Your task to perform on an android device: find snoozed emails in the gmail app Image 0: 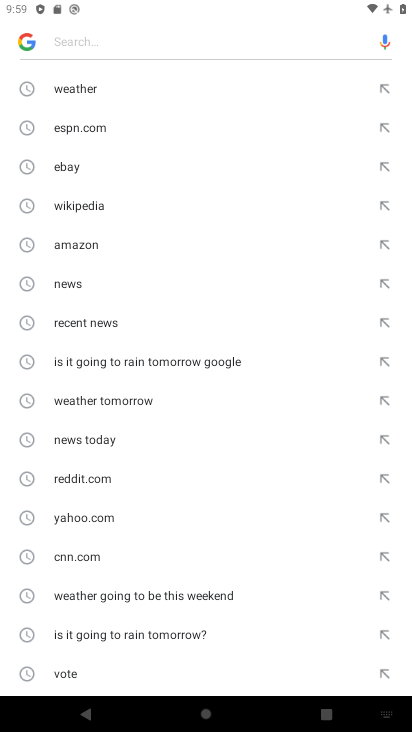
Step 0: press home button
Your task to perform on an android device: find snoozed emails in the gmail app Image 1: 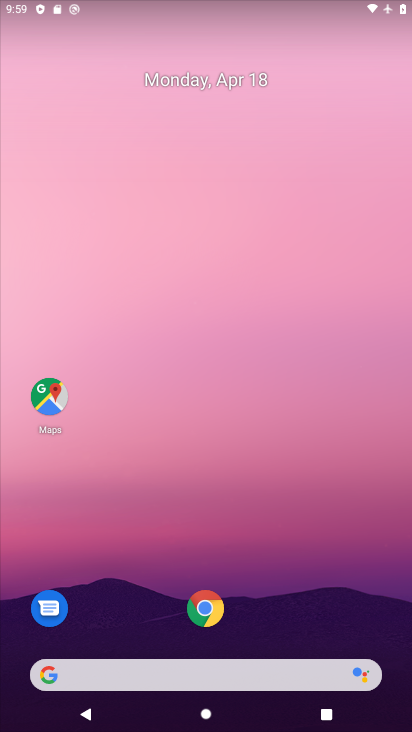
Step 1: drag from (278, 542) to (218, 250)
Your task to perform on an android device: find snoozed emails in the gmail app Image 2: 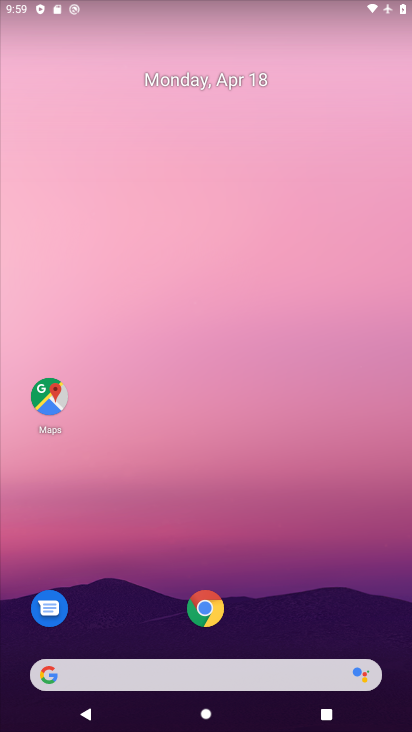
Step 2: drag from (202, 564) to (139, 167)
Your task to perform on an android device: find snoozed emails in the gmail app Image 3: 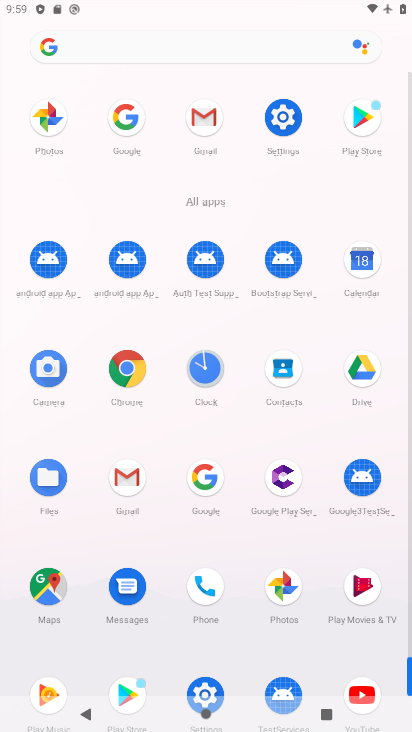
Step 3: click (130, 488)
Your task to perform on an android device: find snoozed emails in the gmail app Image 4: 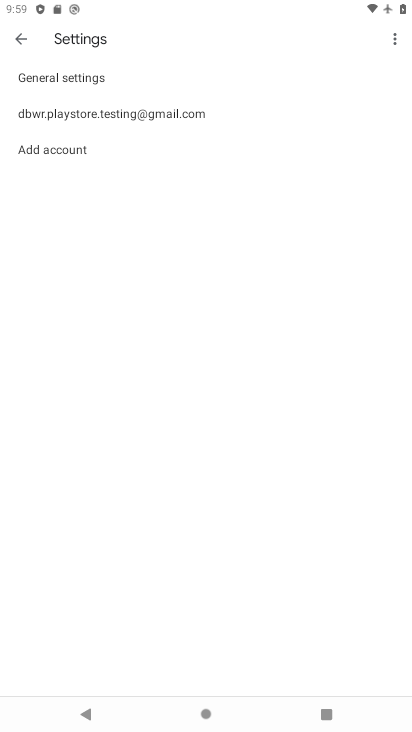
Step 4: press back button
Your task to perform on an android device: find snoozed emails in the gmail app Image 5: 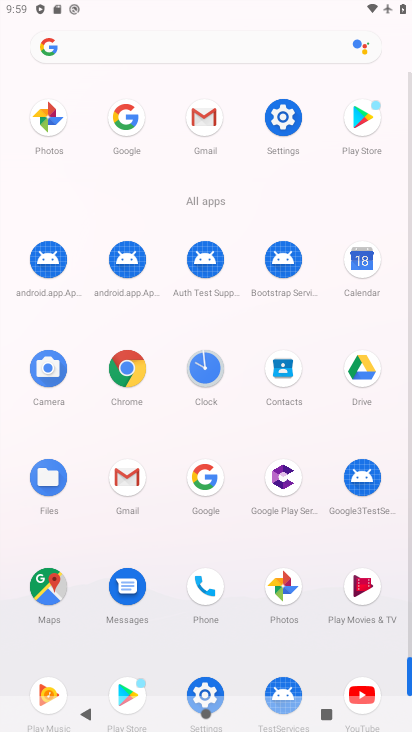
Step 5: click (200, 130)
Your task to perform on an android device: find snoozed emails in the gmail app Image 6: 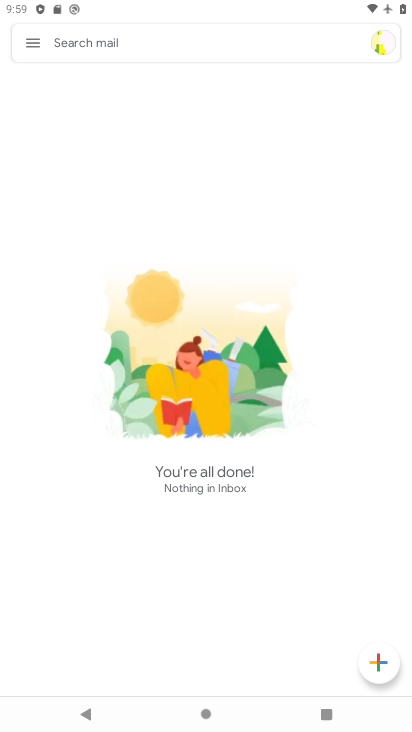
Step 6: click (29, 50)
Your task to perform on an android device: find snoozed emails in the gmail app Image 7: 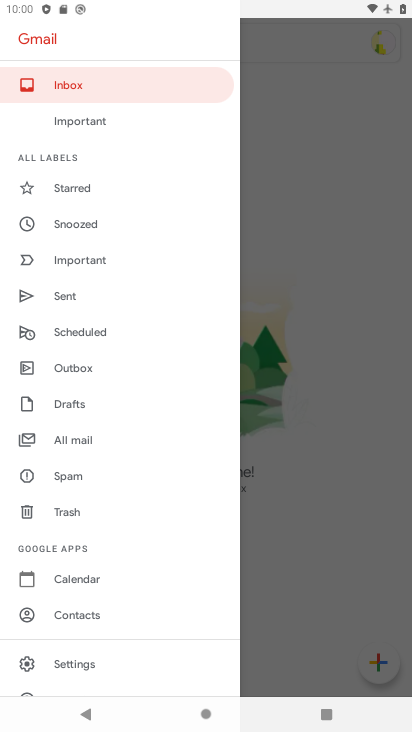
Step 7: click (99, 224)
Your task to perform on an android device: find snoozed emails in the gmail app Image 8: 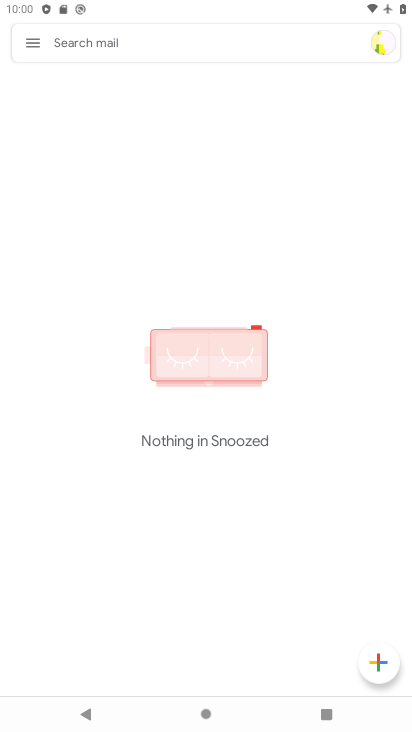
Step 8: task complete